Your task to perform on an android device: delete browsing data in the chrome app Image 0: 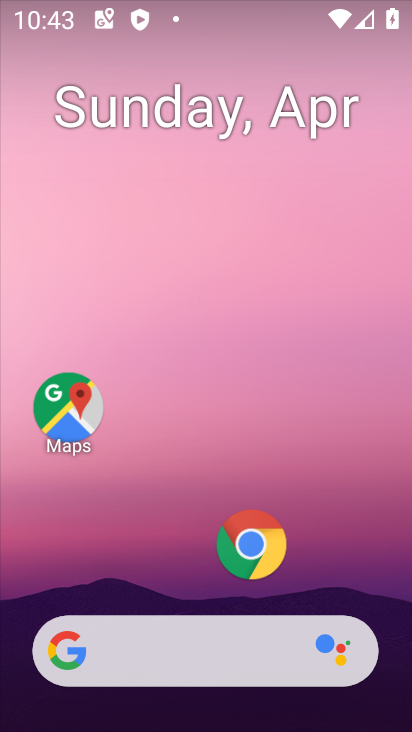
Step 0: click (256, 550)
Your task to perform on an android device: delete browsing data in the chrome app Image 1: 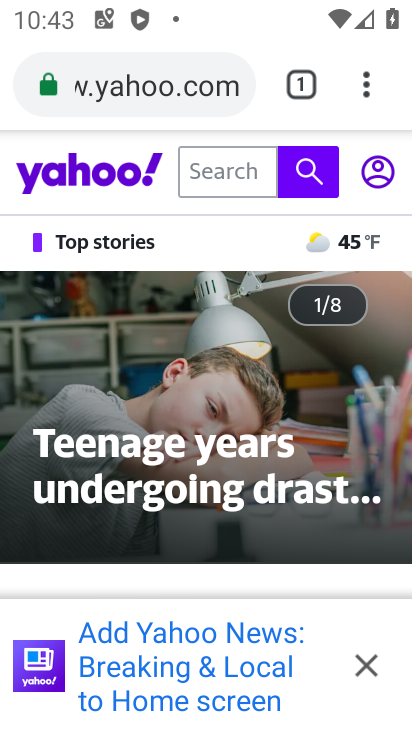
Step 1: drag from (357, 76) to (147, 480)
Your task to perform on an android device: delete browsing data in the chrome app Image 2: 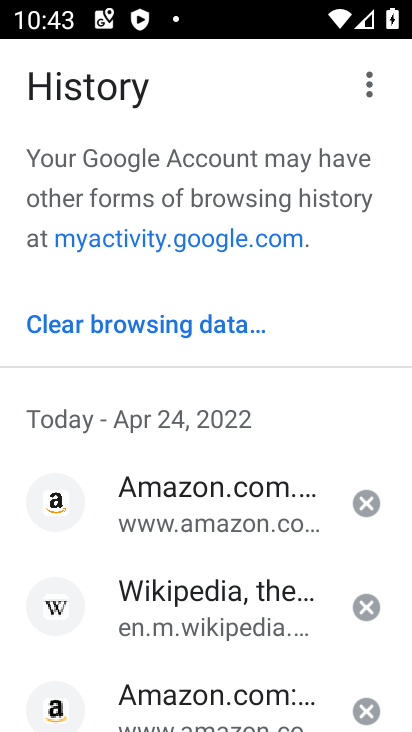
Step 2: click (127, 322)
Your task to perform on an android device: delete browsing data in the chrome app Image 3: 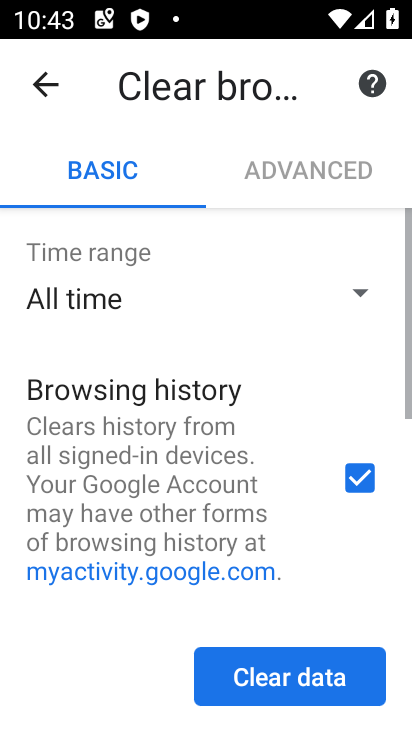
Step 3: drag from (229, 377) to (243, 269)
Your task to perform on an android device: delete browsing data in the chrome app Image 4: 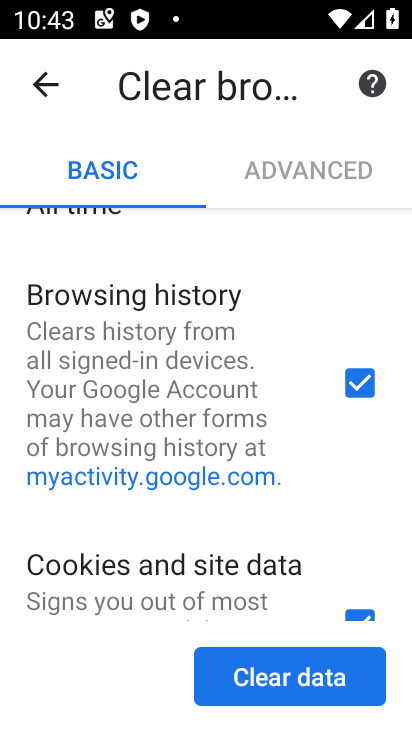
Step 4: click (258, 298)
Your task to perform on an android device: delete browsing data in the chrome app Image 5: 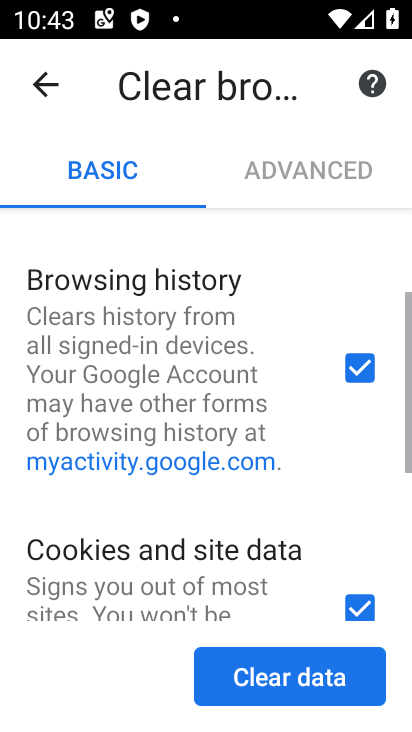
Step 5: drag from (253, 504) to (290, 245)
Your task to perform on an android device: delete browsing data in the chrome app Image 6: 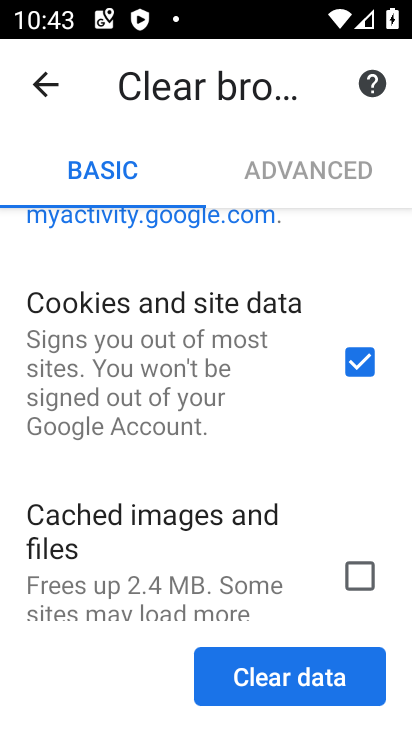
Step 6: click (360, 575)
Your task to perform on an android device: delete browsing data in the chrome app Image 7: 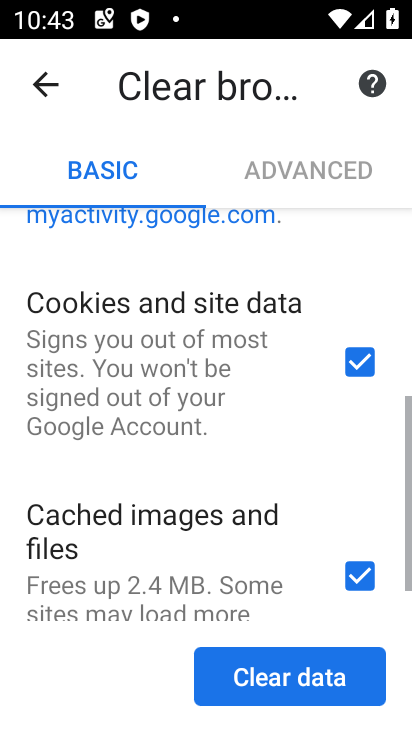
Step 7: click (307, 675)
Your task to perform on an android device: delete browsing data in the chrome app Image 8: 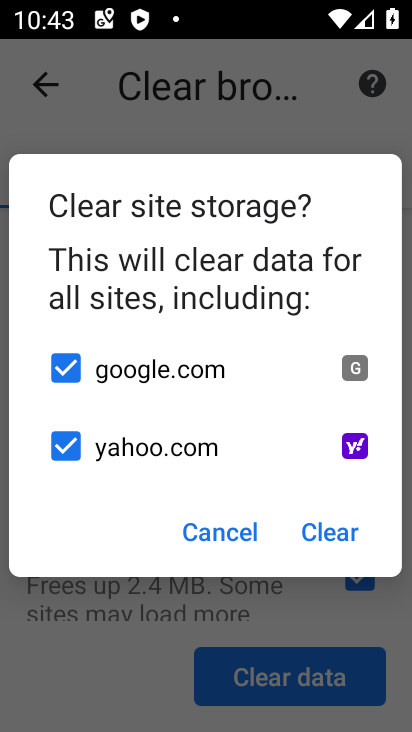
Step 8: click (355, 532)
Your task to perform on an android device: delete browsing data in the chrome app Image 9: 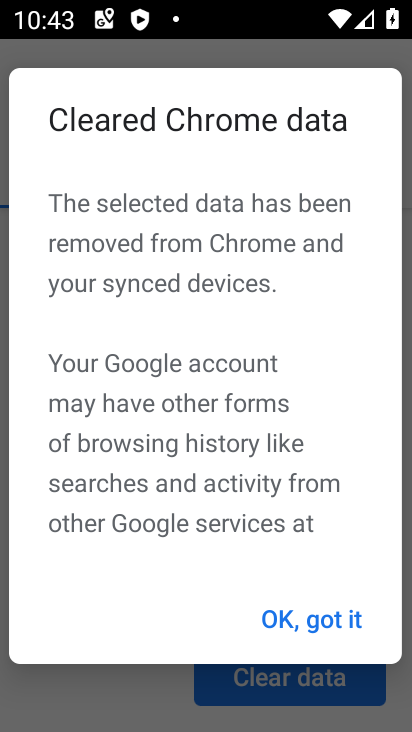
Step 9: task complete